Your task to perform on an android device: Open calendar and show me the third week of next month Image 0: 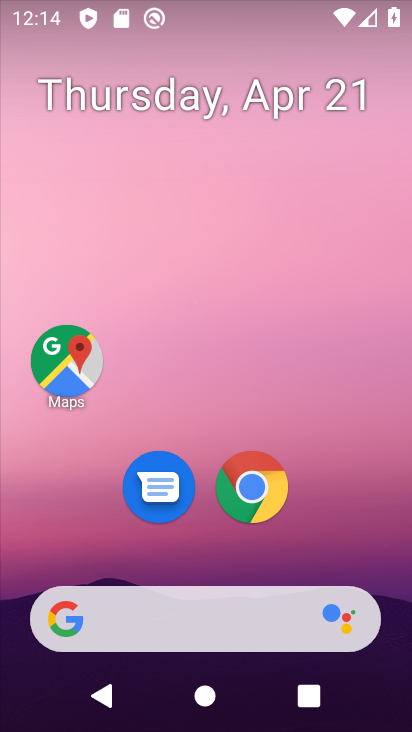
Step 0: drag from (182, 582) to (295, 100)
Your task to perform on an android device: Open calendar and show me the third week of next month Image 1: 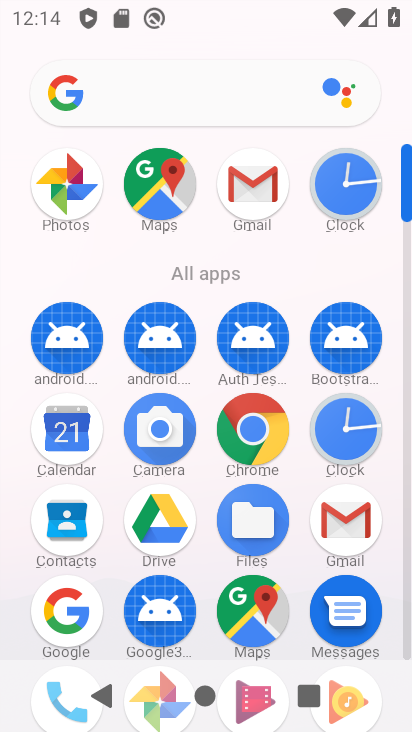
Step 1: click (65, 446)
Your task to perform on an android device: Open calendar and show me the third week of next month Image 2: 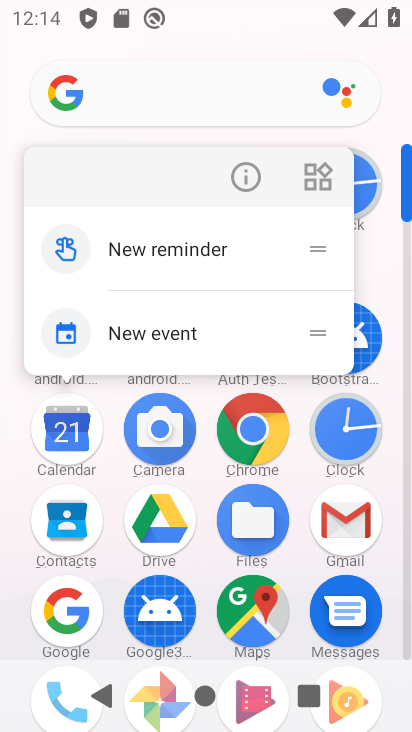
Step 2: click (62, 432)
Your task to perform on an android device: Open calendar and show me the third week of next month Image 3: 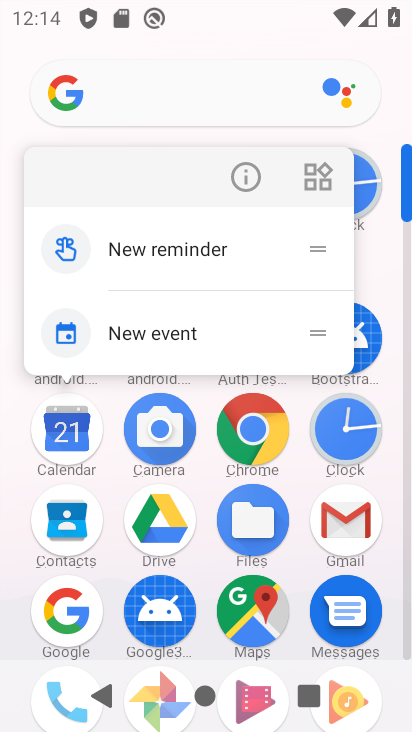
Step 3: click (79, 453)
Your task to perform on an android device: Open calendar and show me the third week of next month Image 4: 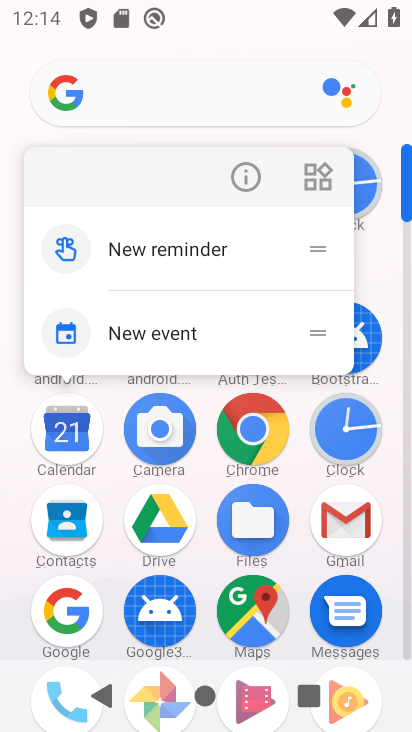
Step 4: click (70, 450)
Your task to perform on an android device: Open calendar and show me the third week of next month Image 5: 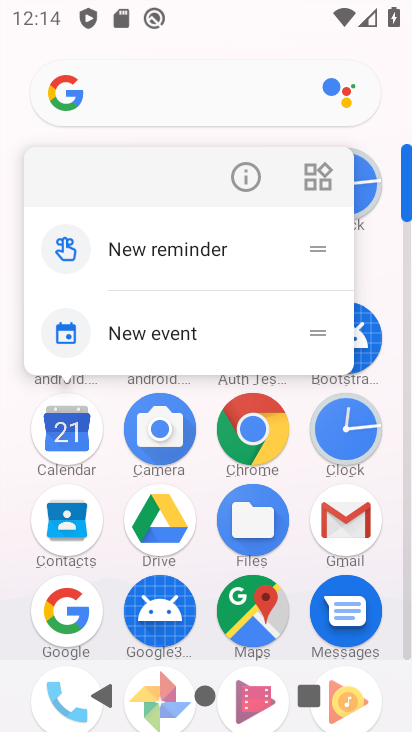
Step 5: click (66, 434)
Your task to perform on an android device: Open calendar and show me the third week of next month Image 6: 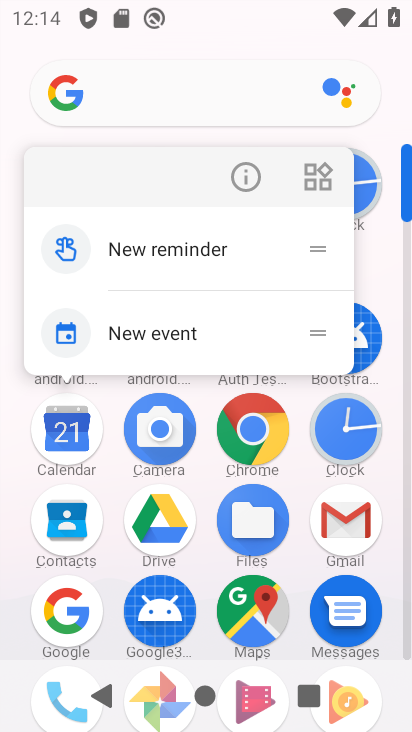
Step 6: click (66, 435)
Your task to perform on an android device: Open calendar and show me the third week of next month Image 7: 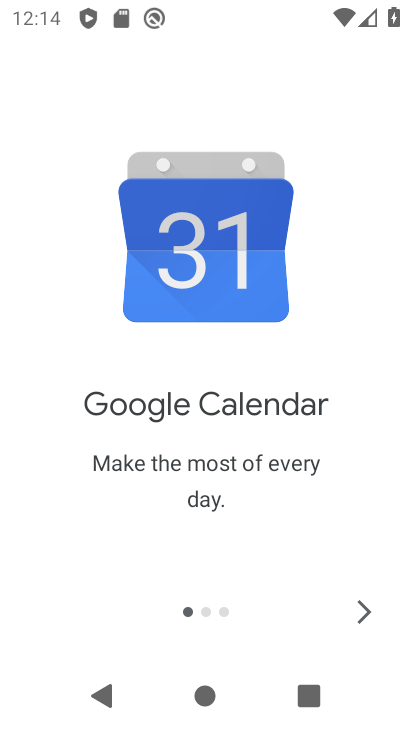
Step 7: click (380, 621)
Your task to perform on an android device: Open calendar and show me the third week of next month Image 8: 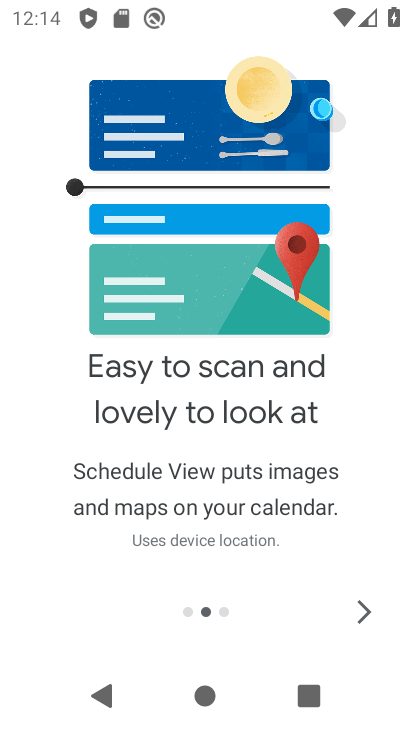
Step 8: click (375, 622)
Your task to perform on an android device: Open calendar and show me the third week of next month Image 9: 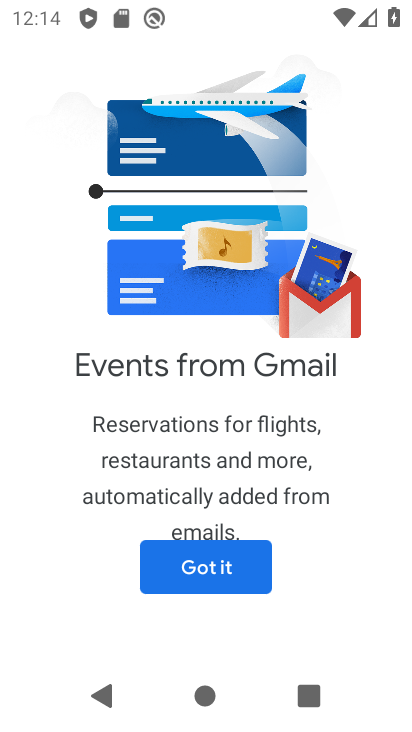
Step 9: click (212, 583)
Your task to perform on an android device: Open calendar and show me the third week of next month Image 10: 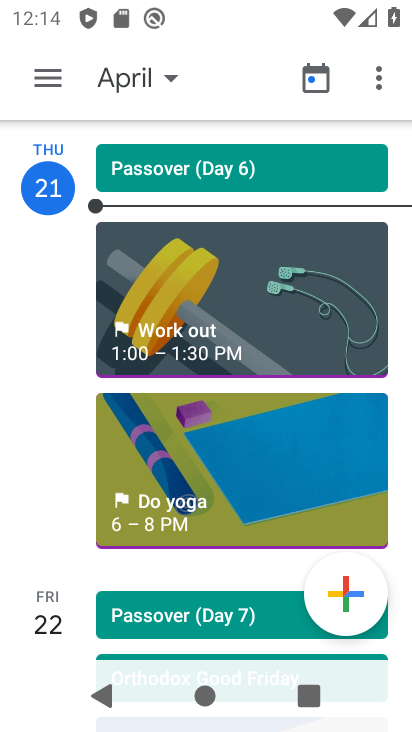
Step 10: click (134, 85)
Your task to perform on an android device: Open calendar and show me the third week of next month Image 11: 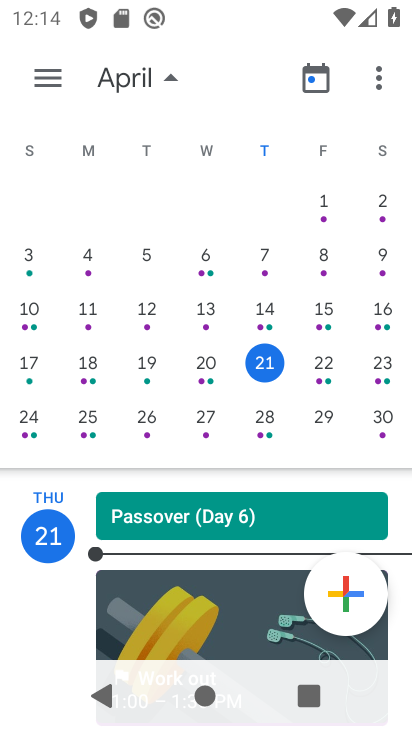
Step 11: drag from (386, 378) to (25, 375)
Your task to perform on an android device: Open calendar and show me the third week of next month Image 12: 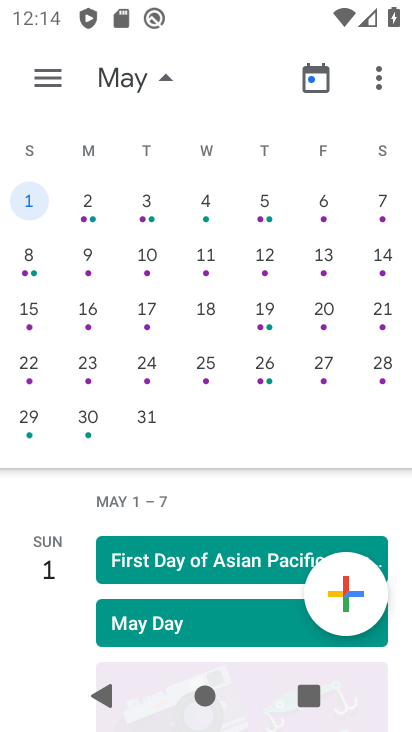
Step 12: click (29, 304)
Your task to perform on an android device: Open calendar and show me the third week of next month Image 13: 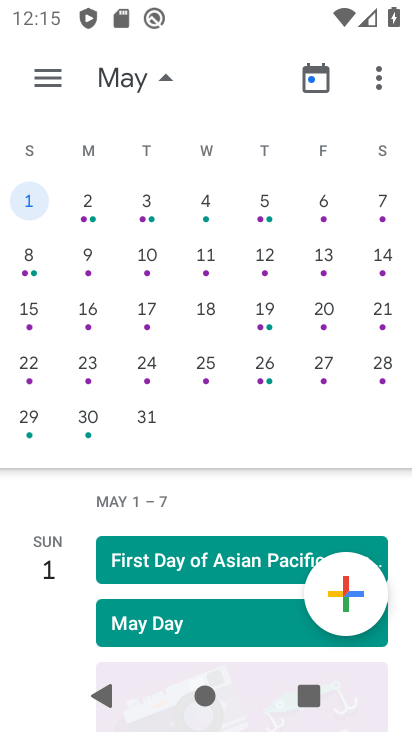
Step 13: click (22, 316)
Your task to perform on an android device: Open calendar and show me the third week of next month Image 14: 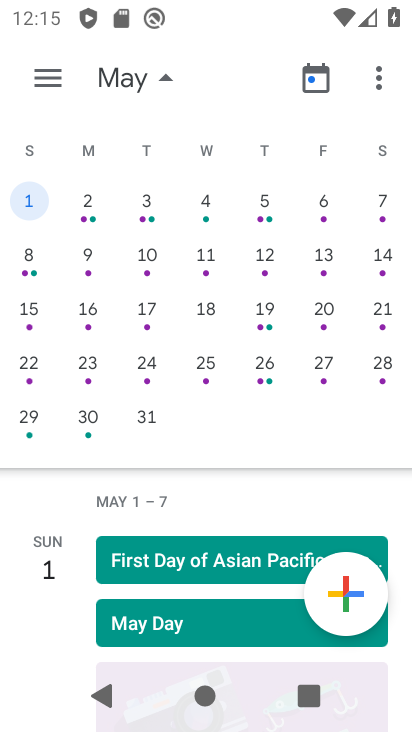
Step 14: click (21, 319)
Your task to perform on an android device: Open calendar and show me the third week of next month Image 15: 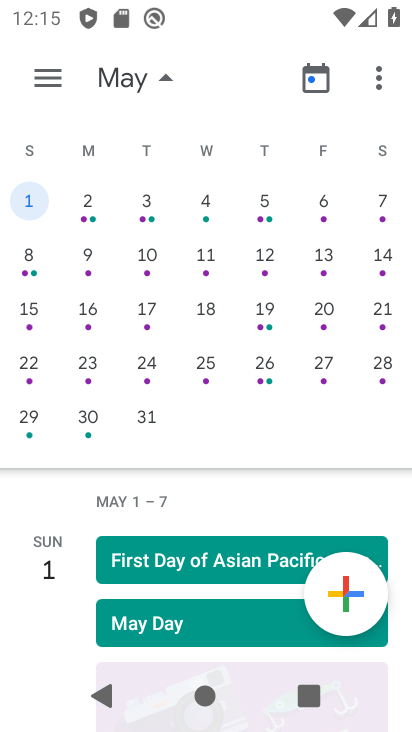
Step 15: click (27, 315)
Your task to perform on an android device: Open calendar and show me the third week of next month Image 16: 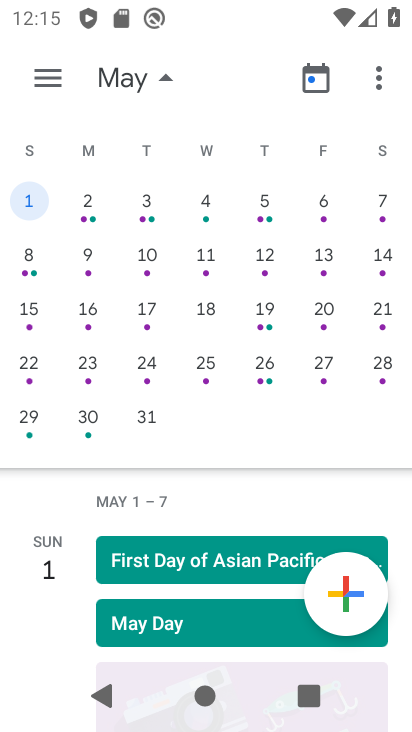
Step 16: click (26, 304)
Your task to perform on an android device: Open calendar and show me the third week of next month Image 17: 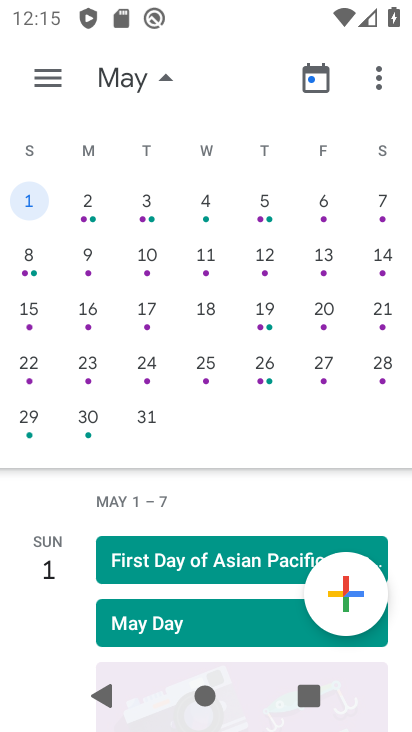
Step 17: click (29, 311)
Your task to perform on an android device: Open calendar and show me the third week of next month Image 18: 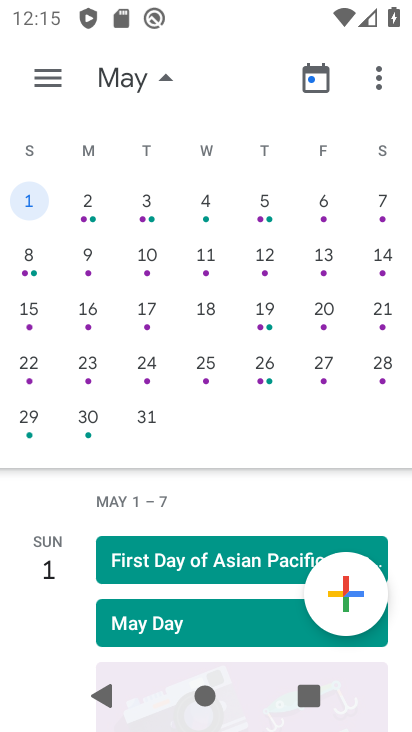
Step 18: click (36, 312)
Your task to perform on an android device: Open calendar and show me the third week of next month Image 19: 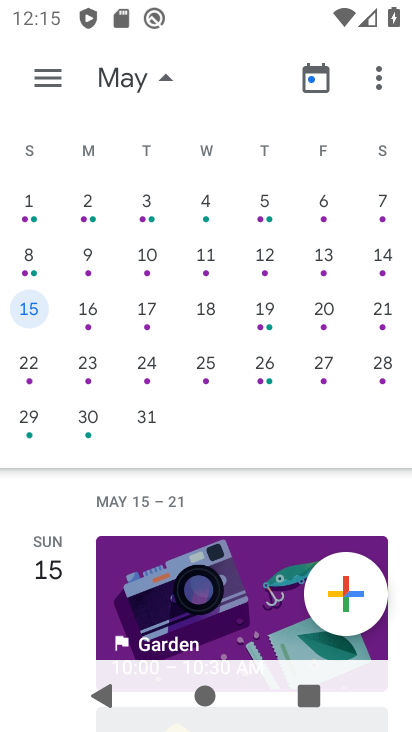
Step 19: click (165, 77)
Your task to perform on an android device: Open calendar and show me the third week of next month Image 20: 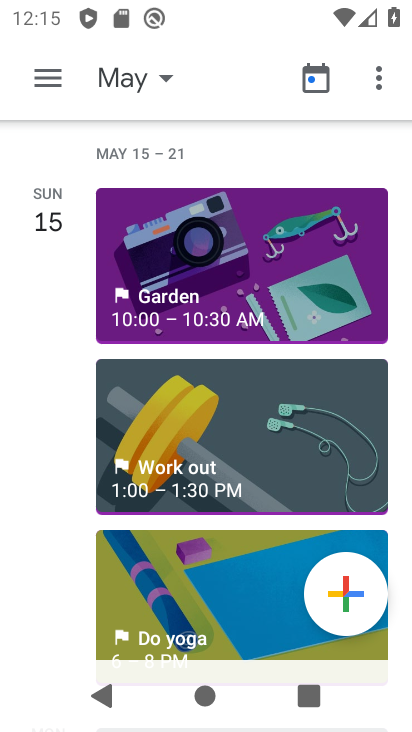
Step 20: click (54, 71)
Your task to perform on an android device: Open calendar and show me the third week of next month Image 21: 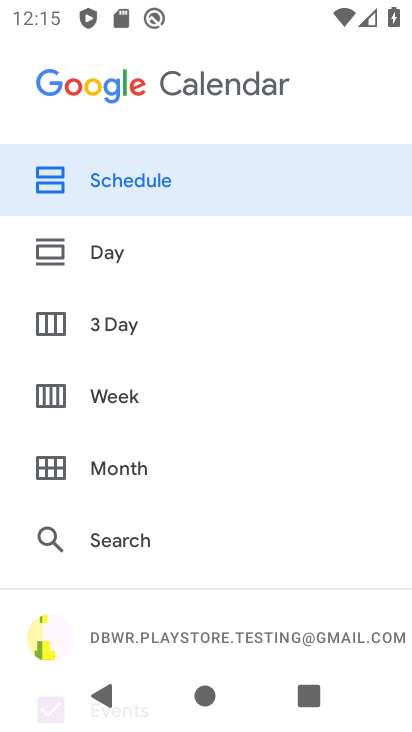
Step 21: click (127, 394)
Your task to perform on an android device: Open calendar and show me the third week of next month Image 22: 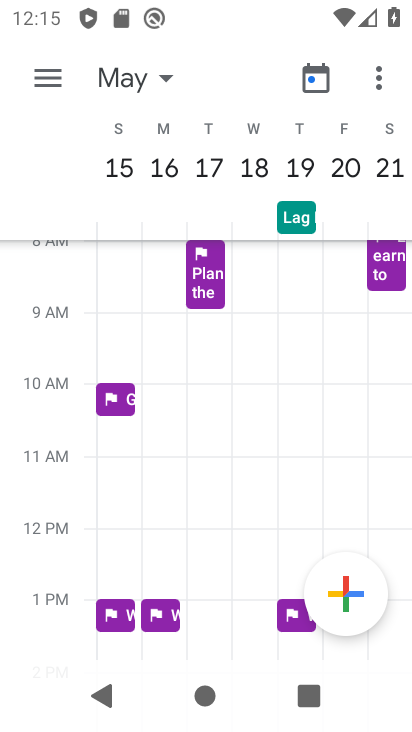
Step 22: task complete